Your task to perform on an android device: change timer sound Image 0: 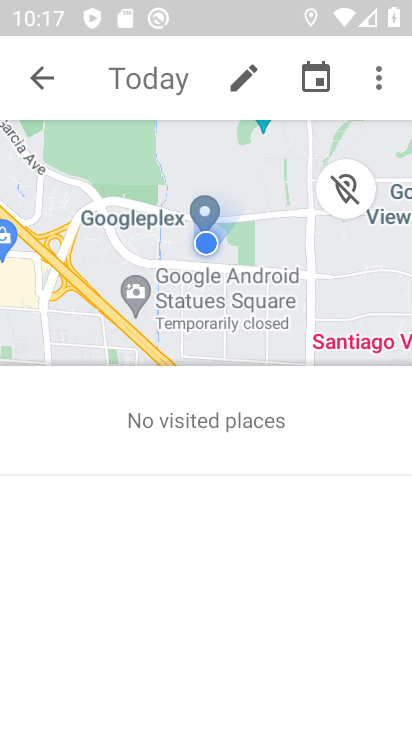
Step 0: press home button
Your task to perform on an android device: change timer sound Image 1: 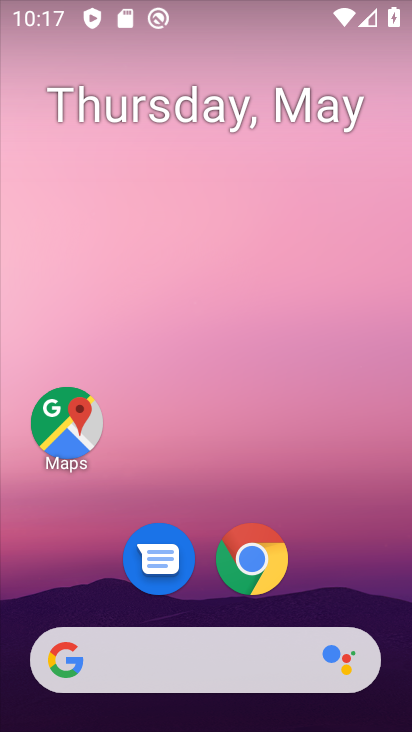
Step 1: drag from (328, 542) to (289, 104)
Your task to perform on an android device: change timer sound Image 2: 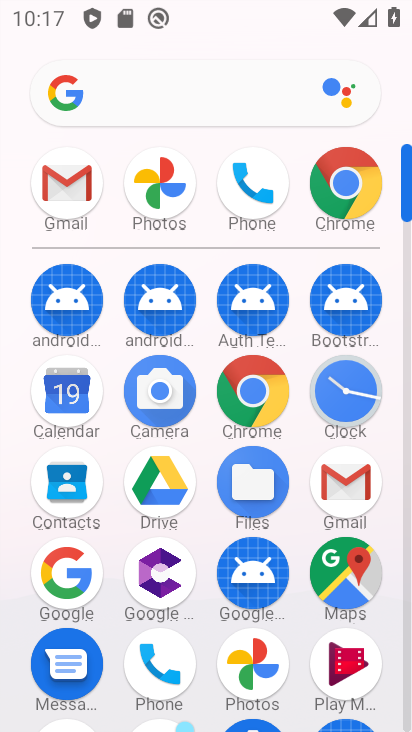
Step 2: click (340, 392)
Your task to perform on an android device: change timer sound Image 3: 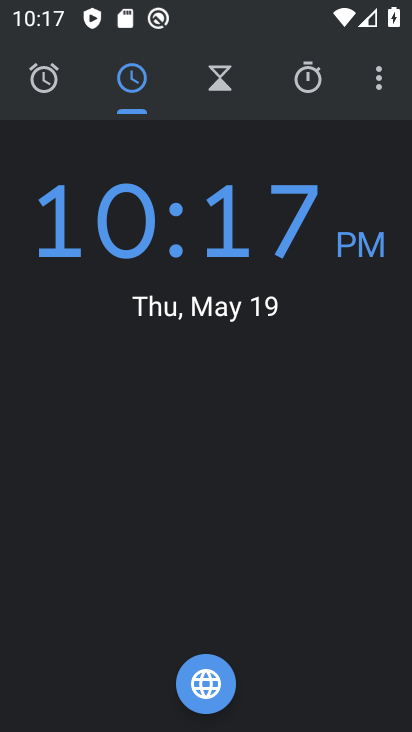
Step 3: click (384, 83)
Your task to perform on an android device: change timer sound Image 4: 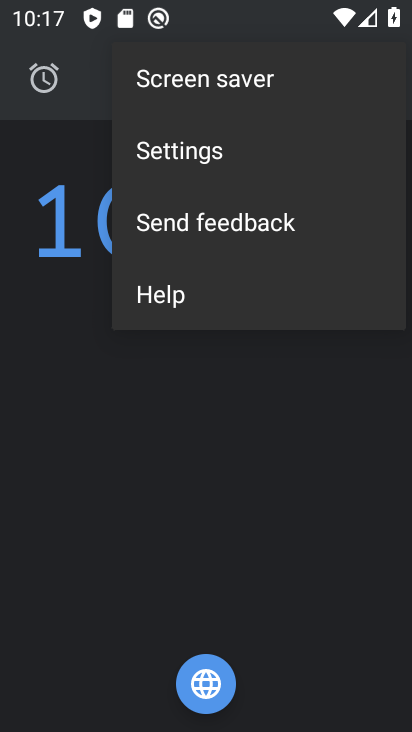
Step 4: click (235, 145)
Your task to perform on an android device: change timer sound Image 5: 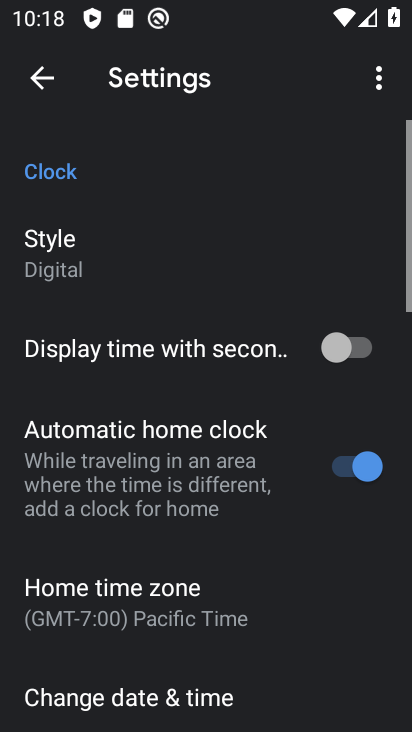
Step 5: drag from (211, 566) to (215, 182)
Your task to perform on an android device: change timer sound Image 6: 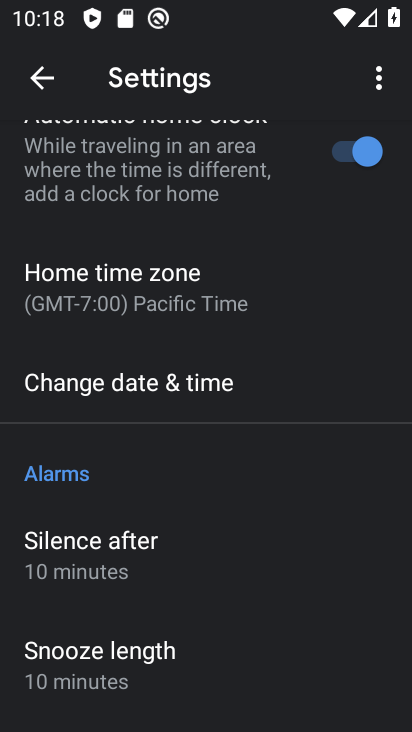
Step 6: drag from (144, 598) to (154, 239)
Your task to perform on an android device: change timer sound Image 7: 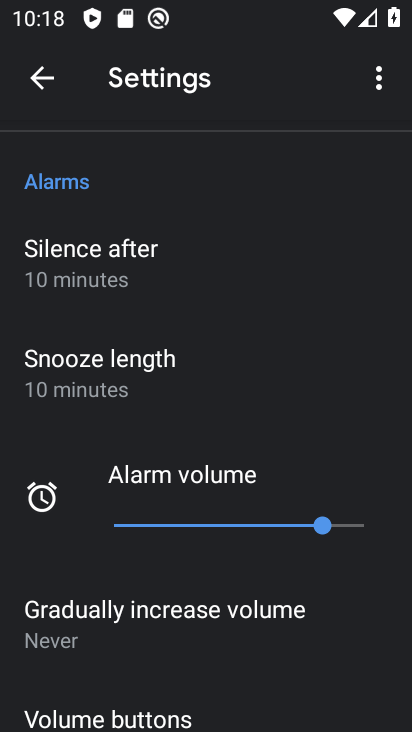
Step 7: drag from (201, 671) to (237, 268)
Your task to perform on an android device: change timer sound Image 8: 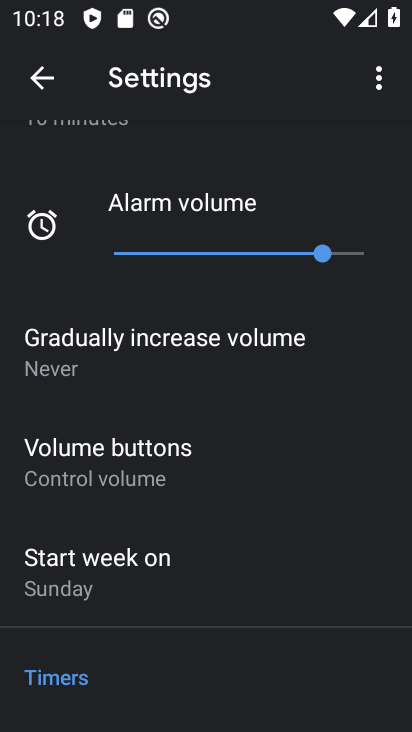
Step 8: drag from (190, 606) to (173, 197)
Your task to perform on an android device: change timer sound Image 9: 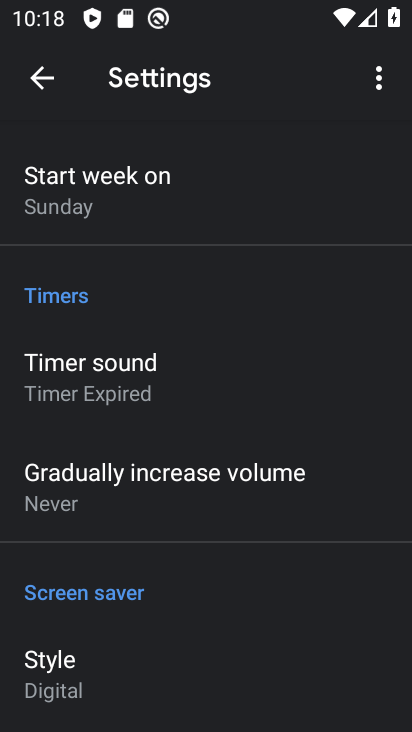
Step 9: drag from (159, 620) to (143, 248)
Your task to perform on an android device: change timer sound Image 10: 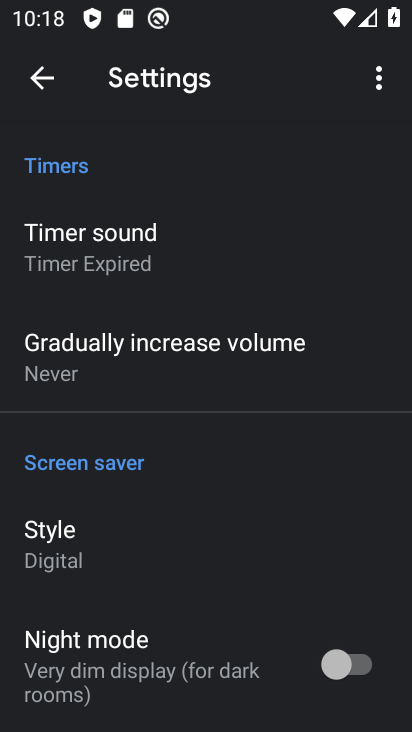
Step 10: click (118, 255)
Your task to perform on an android device: change timer sound Image 11: 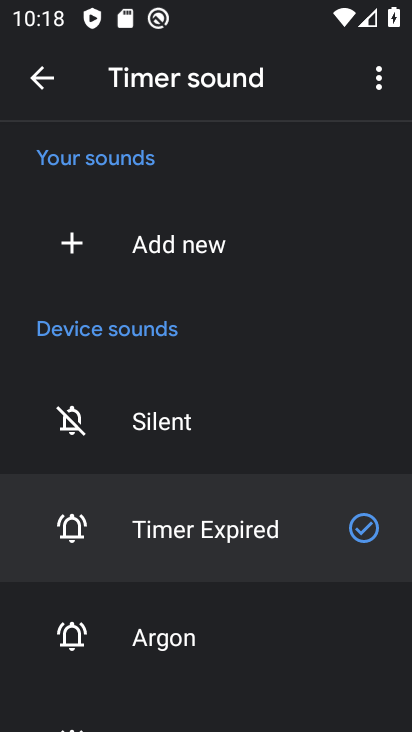
Step 11: click (160, 643)
Your task to perform on an android device: change timer sound Image 12: 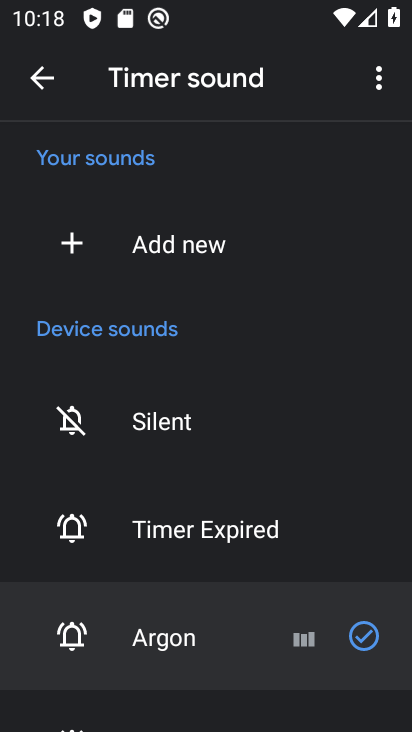
Step 12: task complete